Your task to perform on an android device: Open notification settings Image 0: 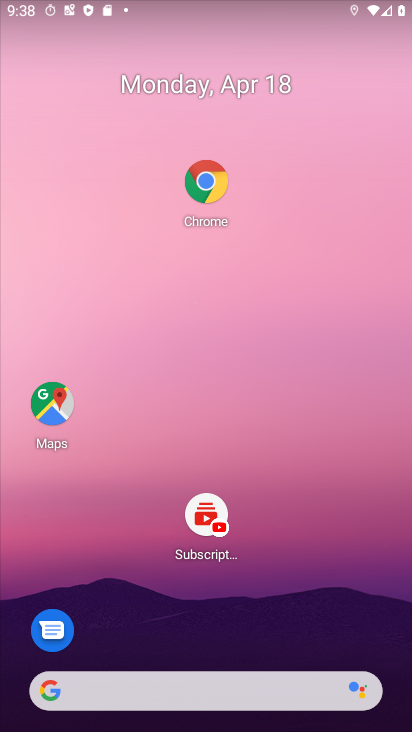
Step 0: drag from (270, 389) to (270, 242)
Your task to perform on an android device: Open notification settings Image 1: 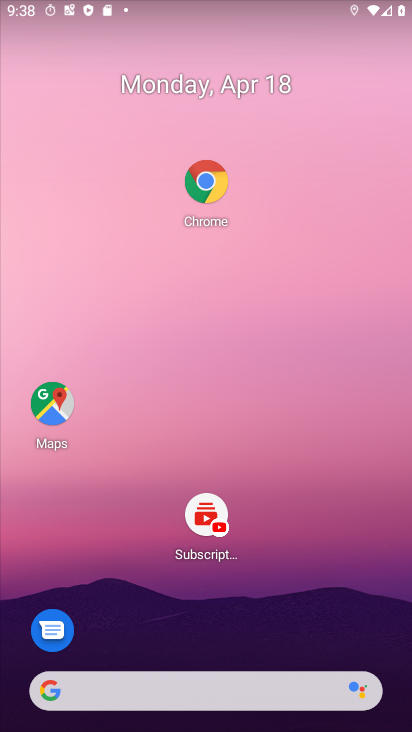
Step 1: drag from (193, 633) to (214, 149)
Your task to perform on an android device: Open notification settings Image 2: 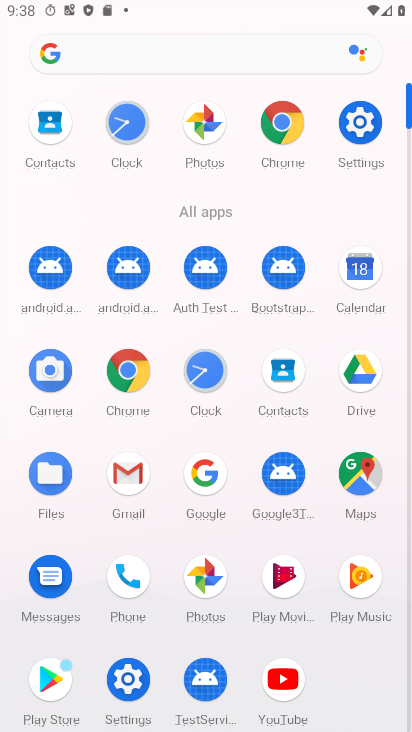
Step 2: click (346, 142)
Your task to perform on an android device: Open notification settings Image 3: 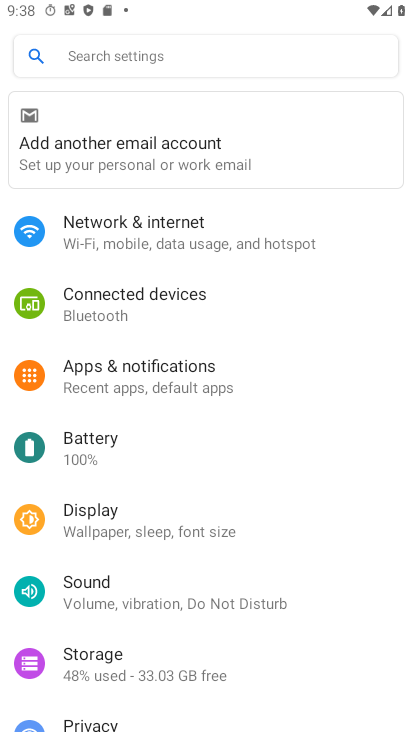
Step 3: drag from (156, 596) to (195, 399)
Your task to perform on an android device: Open notification settings Image 4: 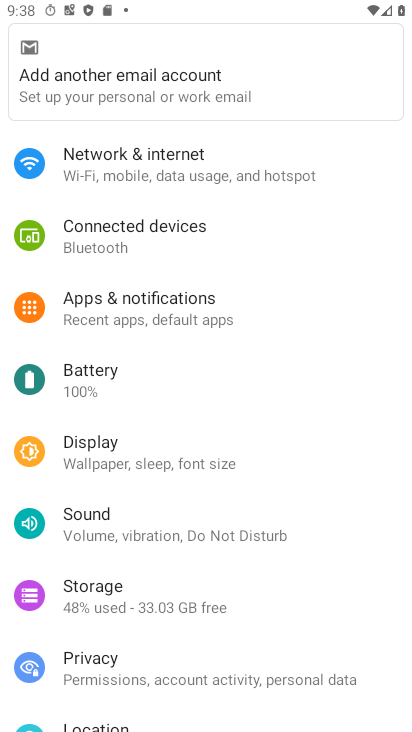
Step 4: click (156, 317)
Your task to perform on an android device: Open notification settings Image 5: 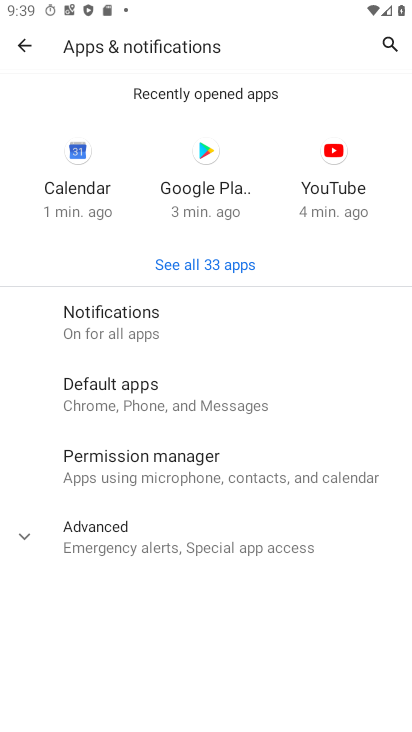
Step 5: click (138, 329)
Your task to perform on an android device: Open notification settings Image 6: 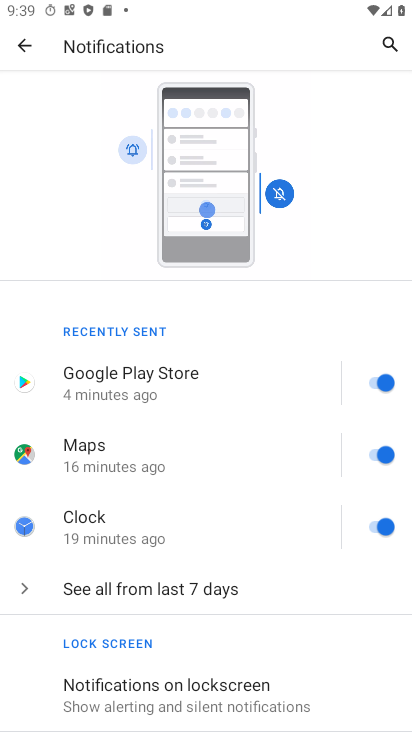
Step 6: drag from (180, 616) to (220, 265)
Your task to perform on an android device: Open notification settings Image 7: 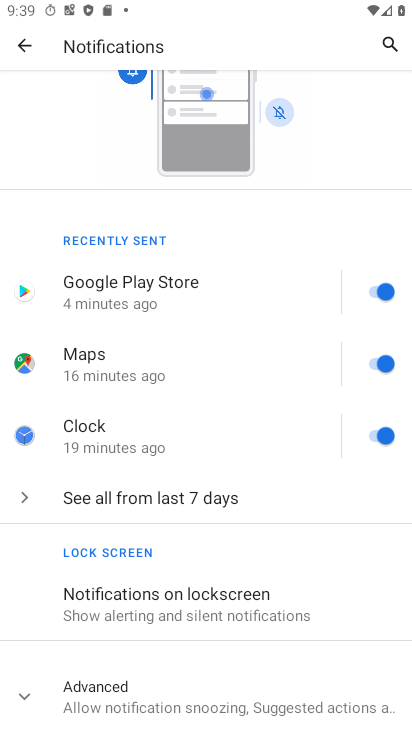
Step 7: click (33, 691)
Your task to perform on an android device: Open notification settings Image 8: 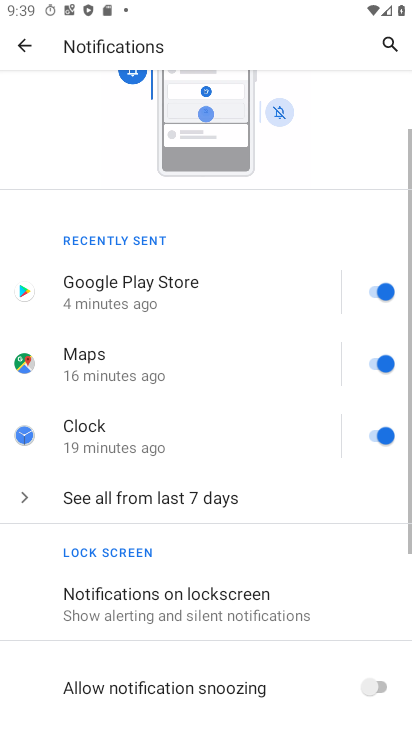
Step 8: task complete